Your task to perform on an android device: What is the news today? Image 0: 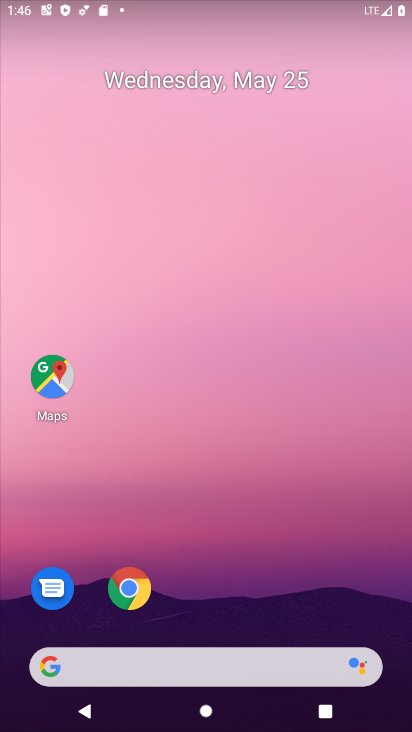
Step 0: click (95, 667)
Your task to perform on an android device: What is the news today? Image 1: 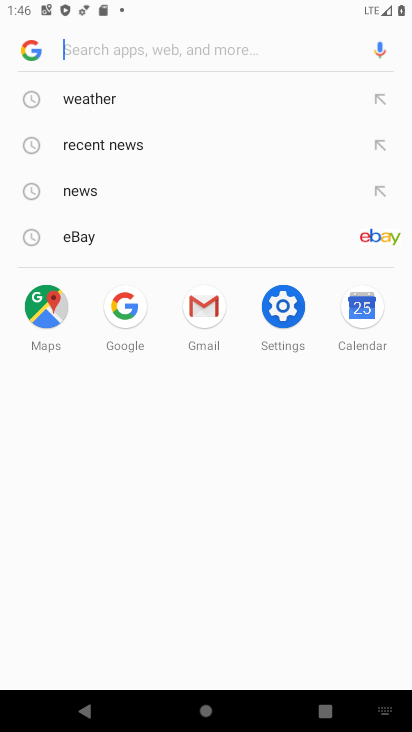
Step 1: type "news today"
Your task to perform on an android device: What is the news today? Image 2: 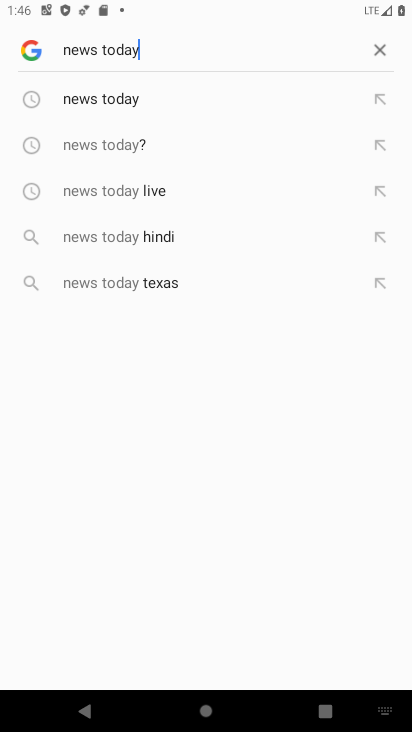
Step 2: click (108, 101)
Your task to perform on an android device: What is the news today? Image 3: 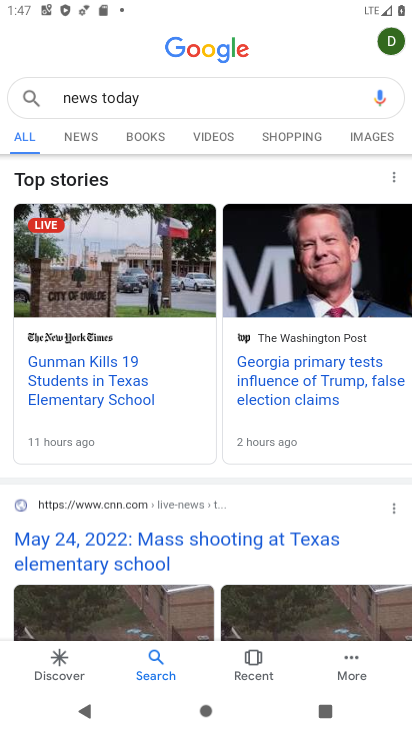
Step 3: click (298, 363)
Your task to perform on an android device: What is the news today? Image 4: 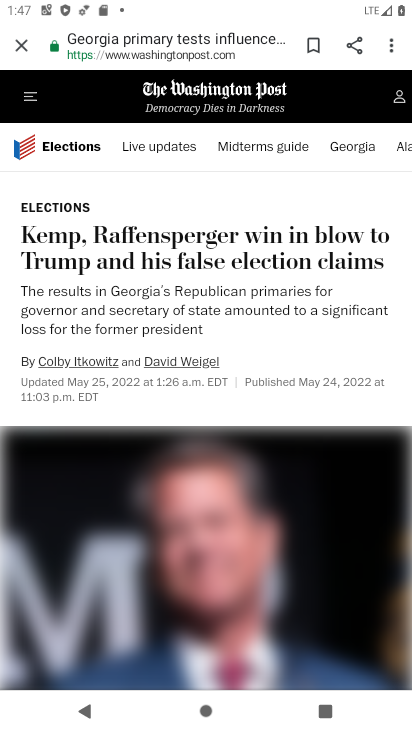
Step 4: task complete